Your task to perform on an android device: turn pop-ups on in chrome Image 0: 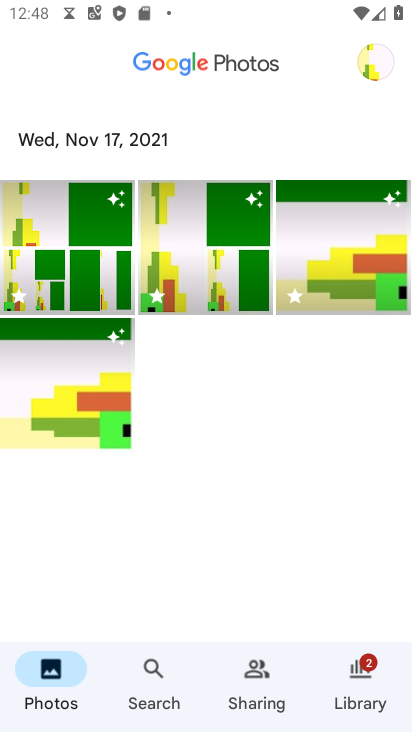
Step 0: press home button
Your task to perform on an android device: turn pop-ups on in chrome Image 1: 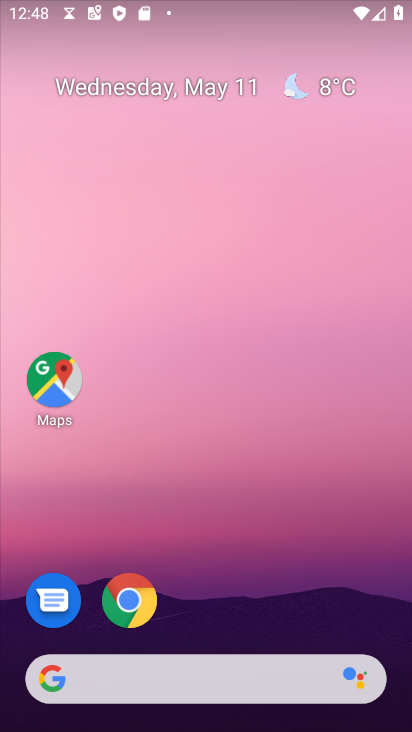
Step 1: drag from (288, 603) to (236, 107)
Your task to perform on an android device: turn pop-ups on in chrome Image 2: 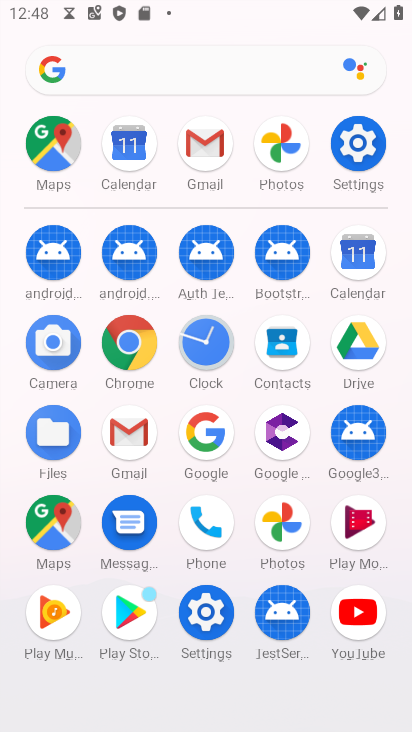
Step 2: click (137, 346)
Your task to perform on an android device: turn pop-ups on in chrome Image 3: 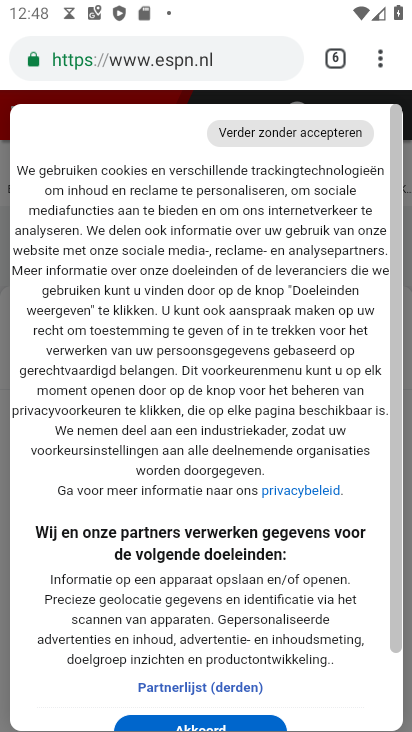
Step 3: click (377, 55)
Your task to perform on an android device: turn pop-ups on in chrome Image 4: 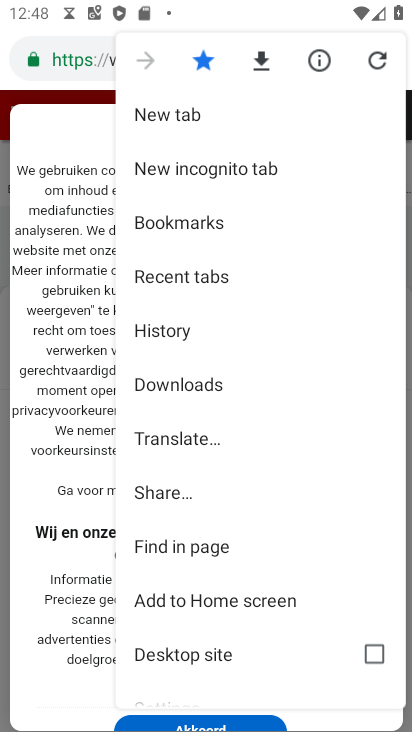
Step 4: drag from (242, 611) to (225, 229)
Your task to perform on an android device: turn pop-ups on in chrome Image 5: 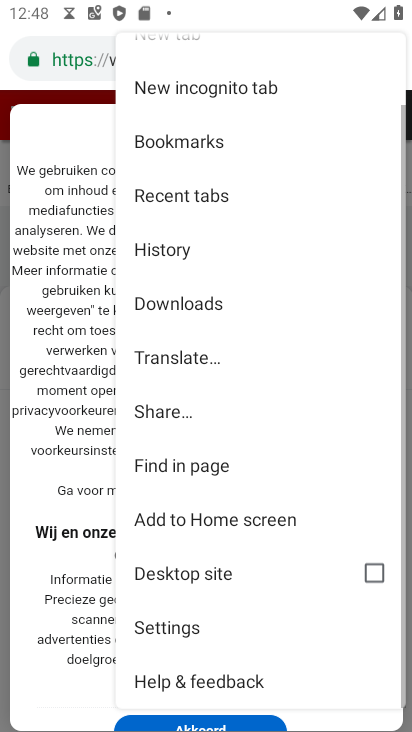
Step 5: click (204, 621)
Your task to perform on an android device: turn pop-ups on in chrome Image 6: 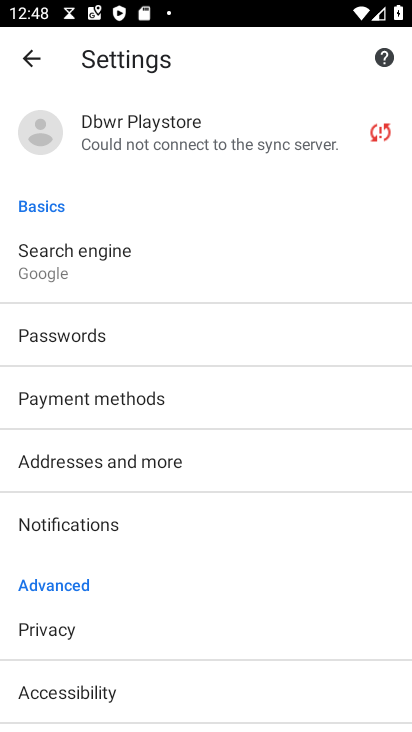
Step 6: drag from (189, 593) to (163, 228)
Your task to perform on an android device: turn pop-ups on in chrome Image 7: 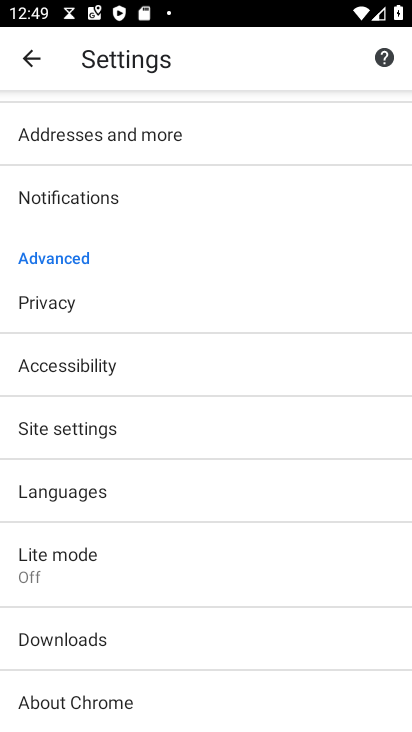
Step 7: click (133, 421)
Your task to perform on an android device: turn pop-ups on in chrome Image 8: 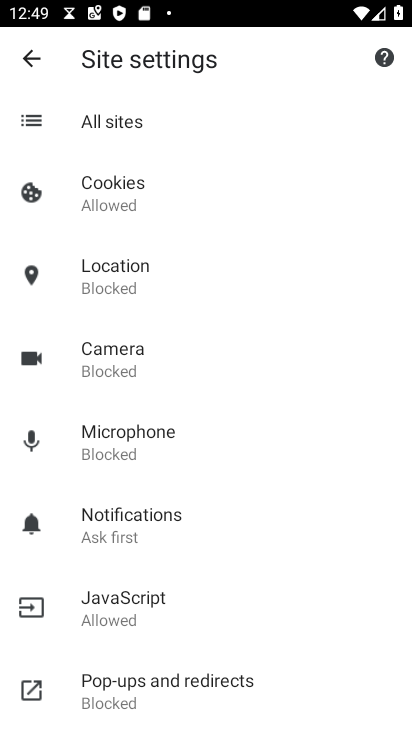
Step 8: click (227, 689)
Your task to perform on an android device: turn pop-ups on in chrome Image 9: 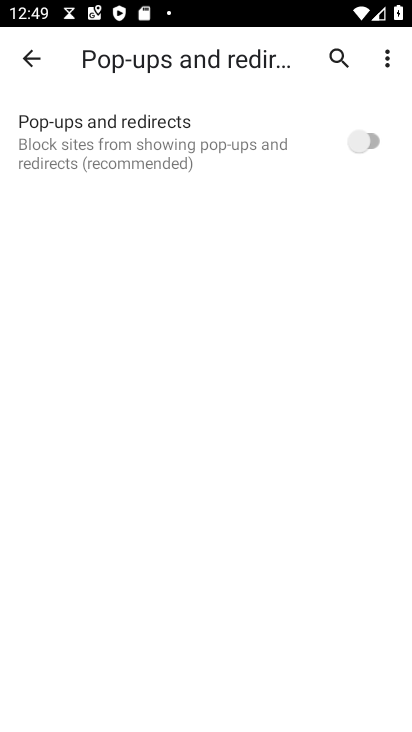
Step 9: click (369, 140)
Your task to perform on an android device: turn pop-ups on in chrome Image 10: 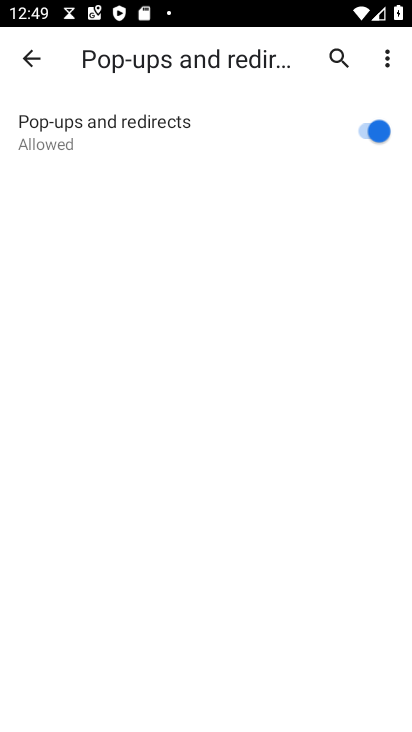
Step 10: task complete